Your task to perform on an android device: Open battery settings Image 0: 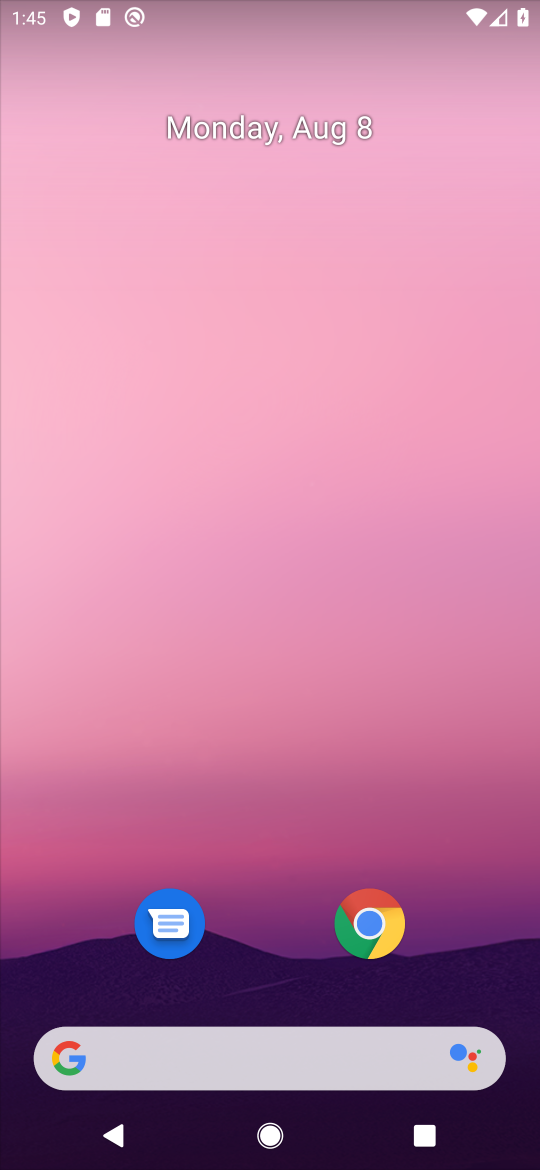
Step 0: drag from (304, 862) to (345, 311)
Your task to perform on an android device: Open battery settings Image 1: 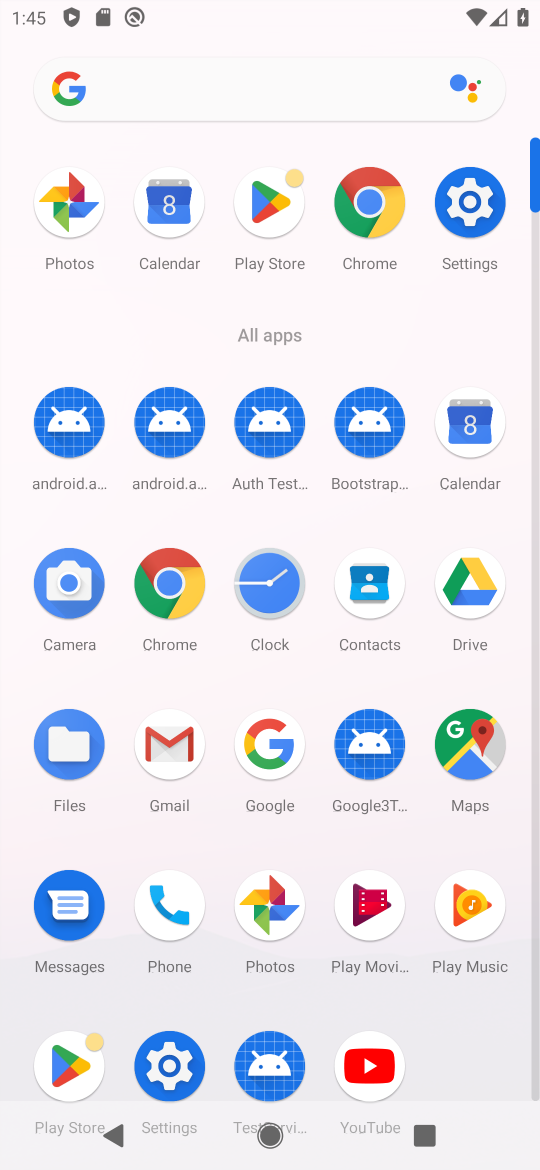
Step 1: click (475, 218)
Your task to perform on an android device: Open battery settings Image 2: 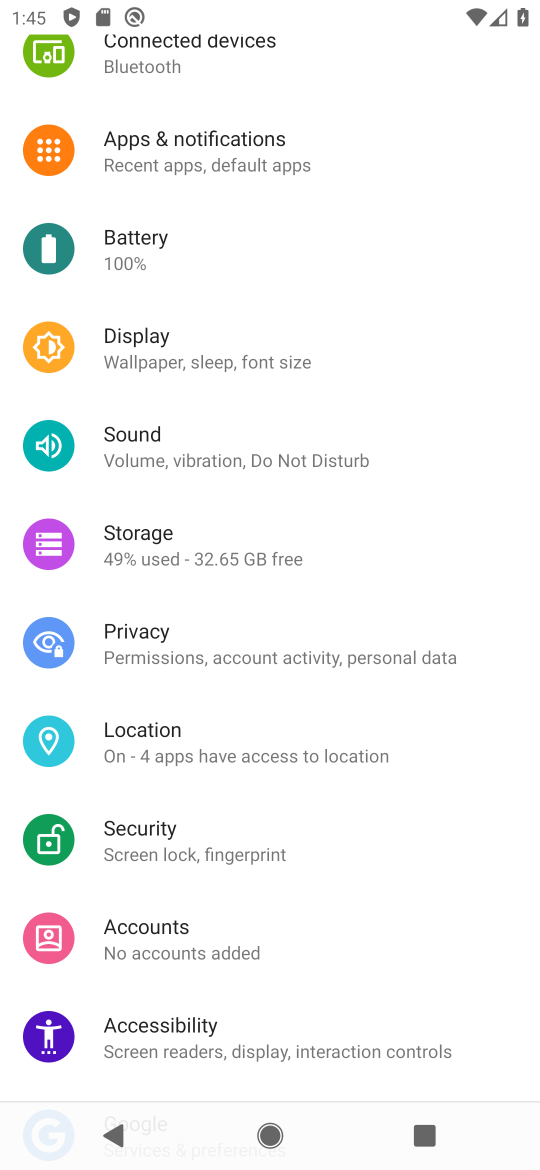
Step 2: click (170, 234)
Your task to perform on an android device: Open battery settings Image 3: 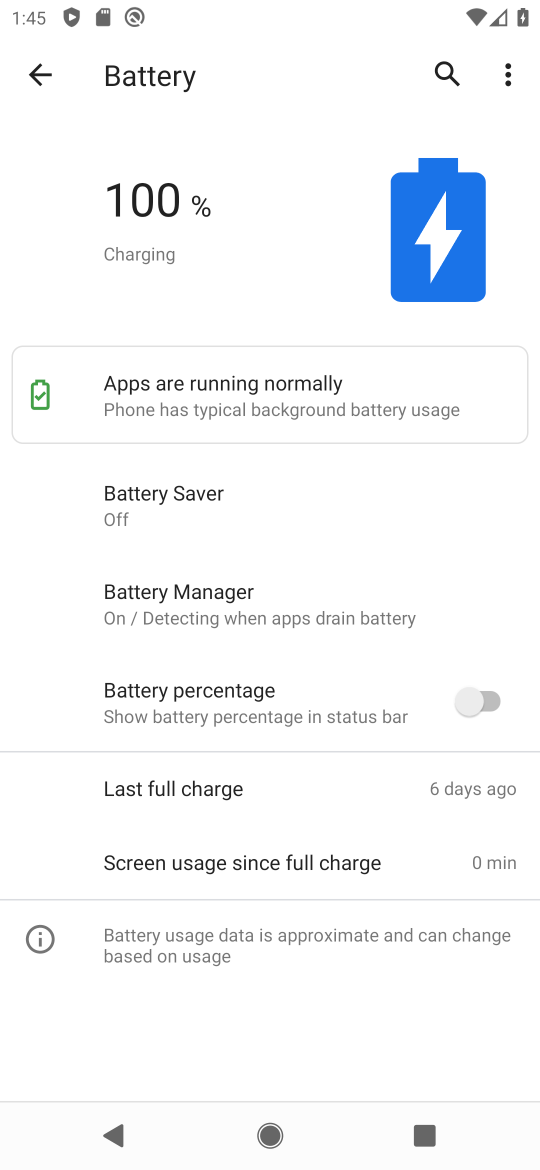
Step 3: task complete